Your task to perform on an android device: turn off location Image 0: 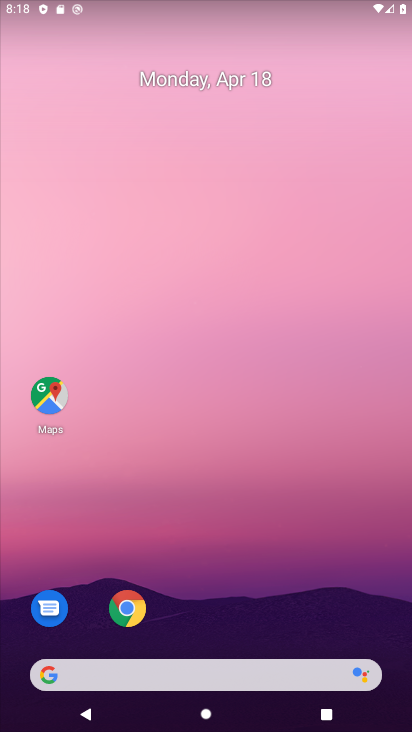
Step 0: drag from (211, 621) to (157, 69)
Your task to perform on an android device: turn off location Image 1: 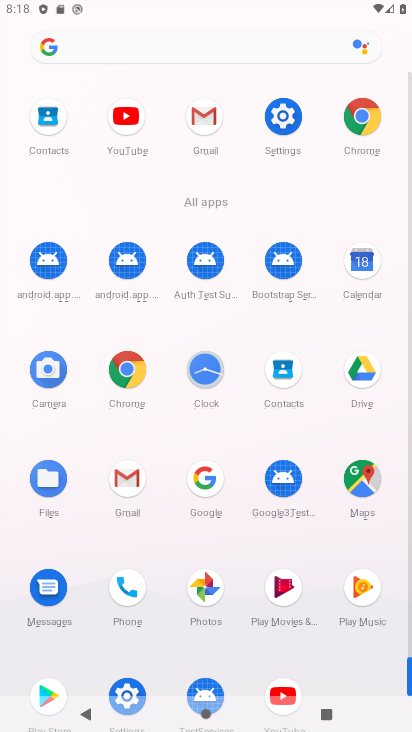
Step 1: click (284, 121)
Your task to perform on an android device: turn off location Image 2: 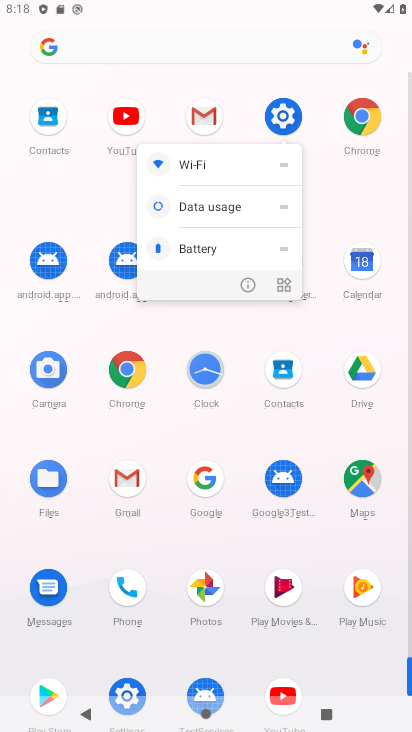
Step 2: click (284, 121)
Your task to perform on an android device: turn off location Image 3: 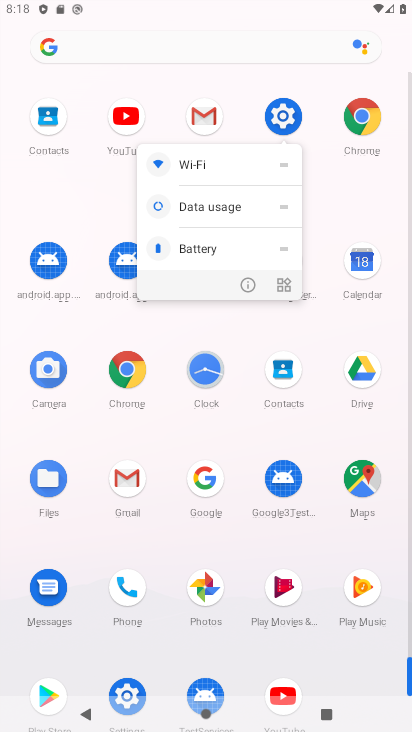
Step 3: click (284, 121)
Your task to perform on an android device: turn off location Image 4: 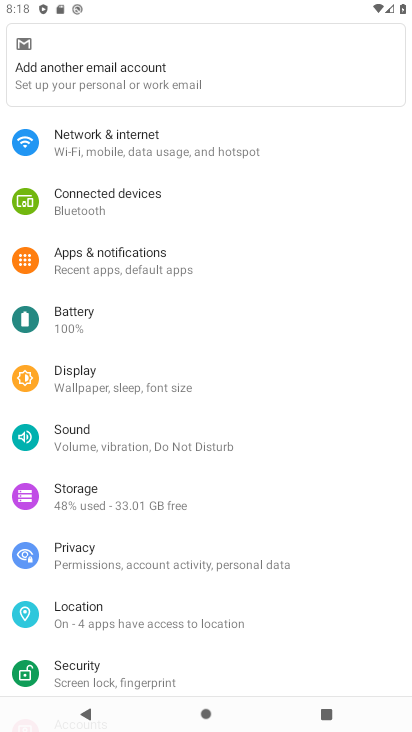
Step 4: click (93, 626)
Your task to perform on an android device: turn off location Image 5: 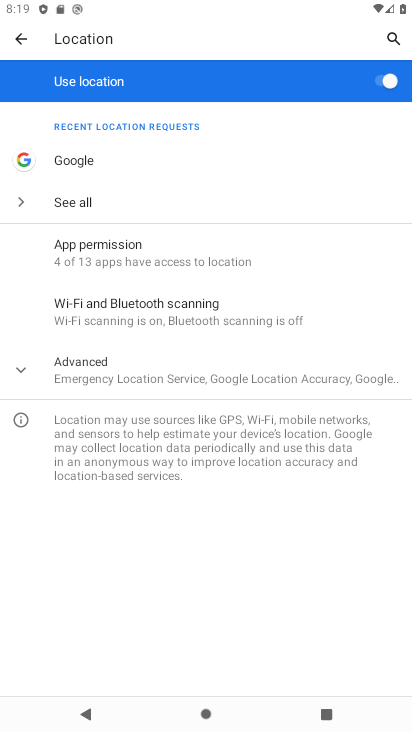
Step 5: click (396, 83)
Your task to perform on an android device: turn off location Image 6: 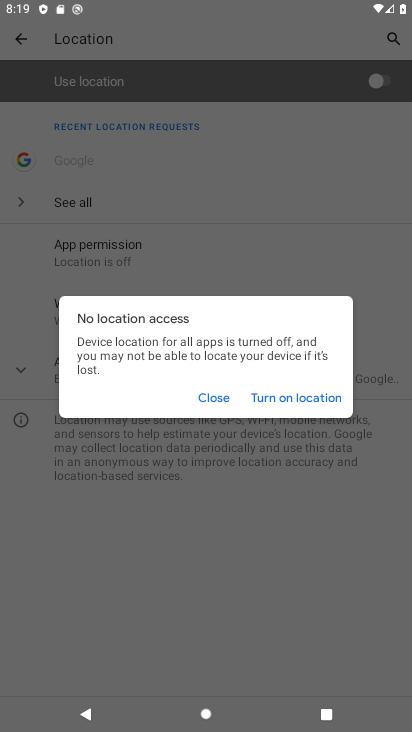
Step 6: click (219, 402)
Your task to perform on an android device: turn off location Image 7: 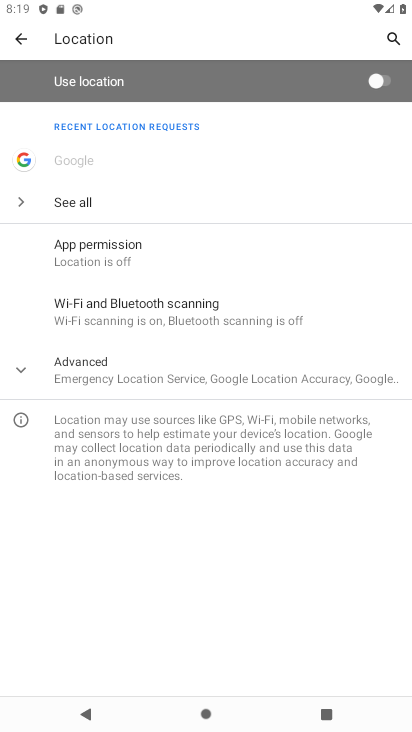
Step 7: task complete